Your task to perform on an android device: install app "Indeed Job Search" Image 0: 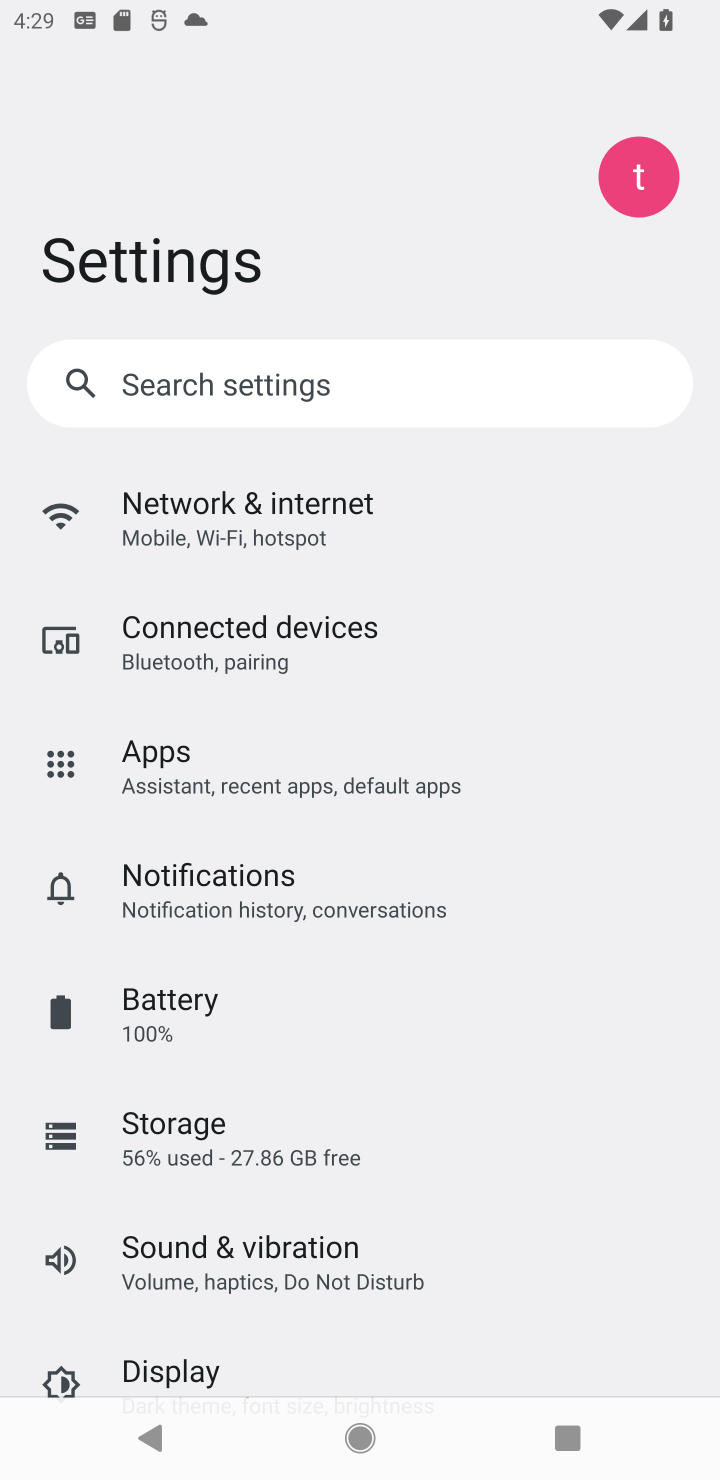
Step 0: press home button
Your task to perform on an android device: install app "Indeed Job Search" Image 1: 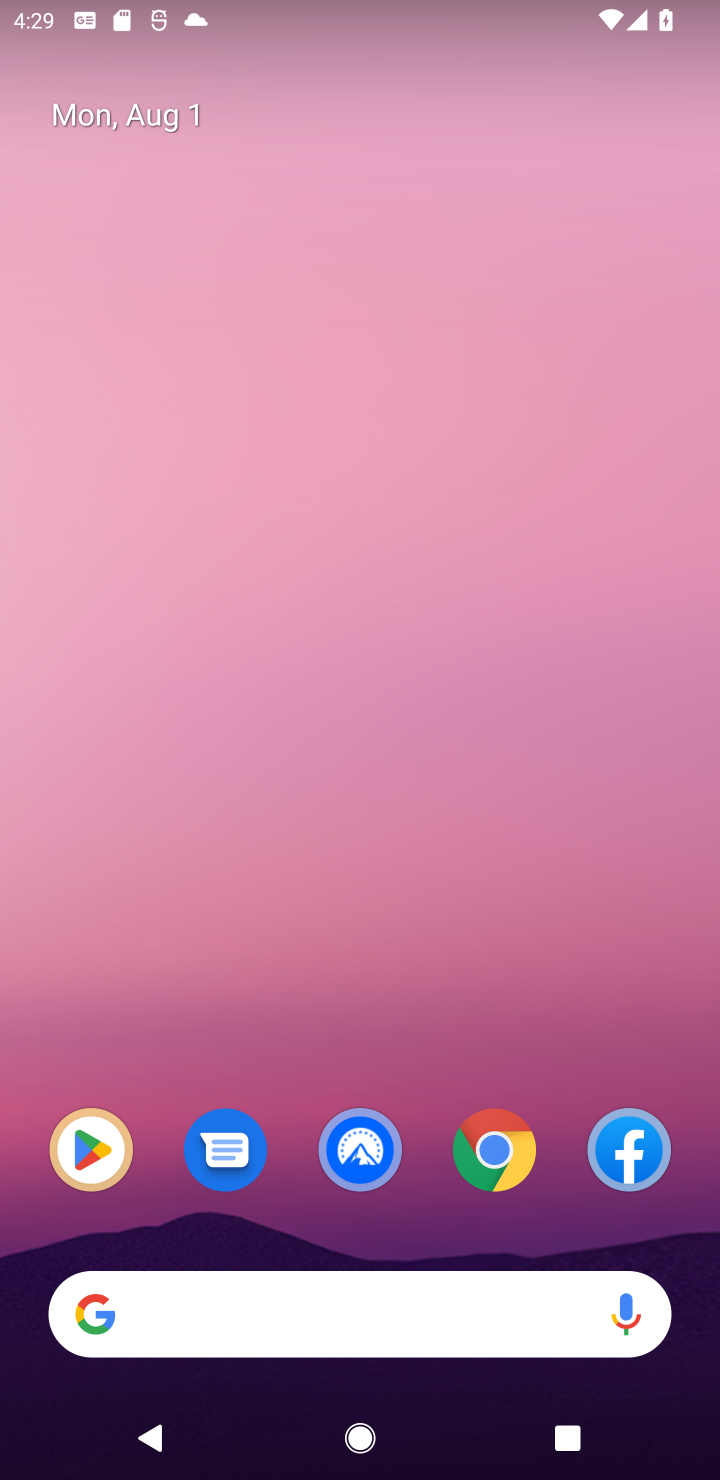
Step 1: drag from (299, 1230) to (390, 168)
Your task to perform on an android device: install app "Indeed Job Search" Image 2: 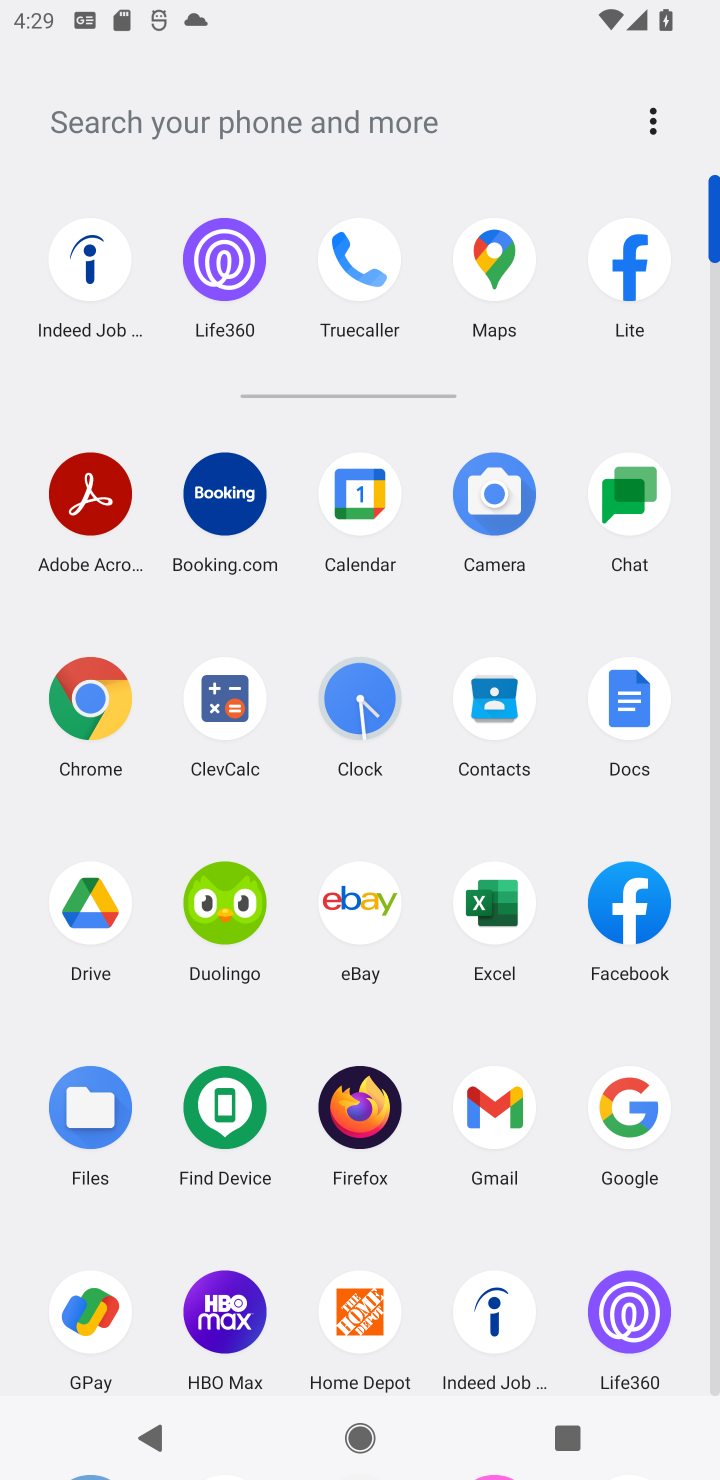
Step 2: click (88, 281)
Your task to perform on an android device: install app "Indeed Job Search" Image 3: 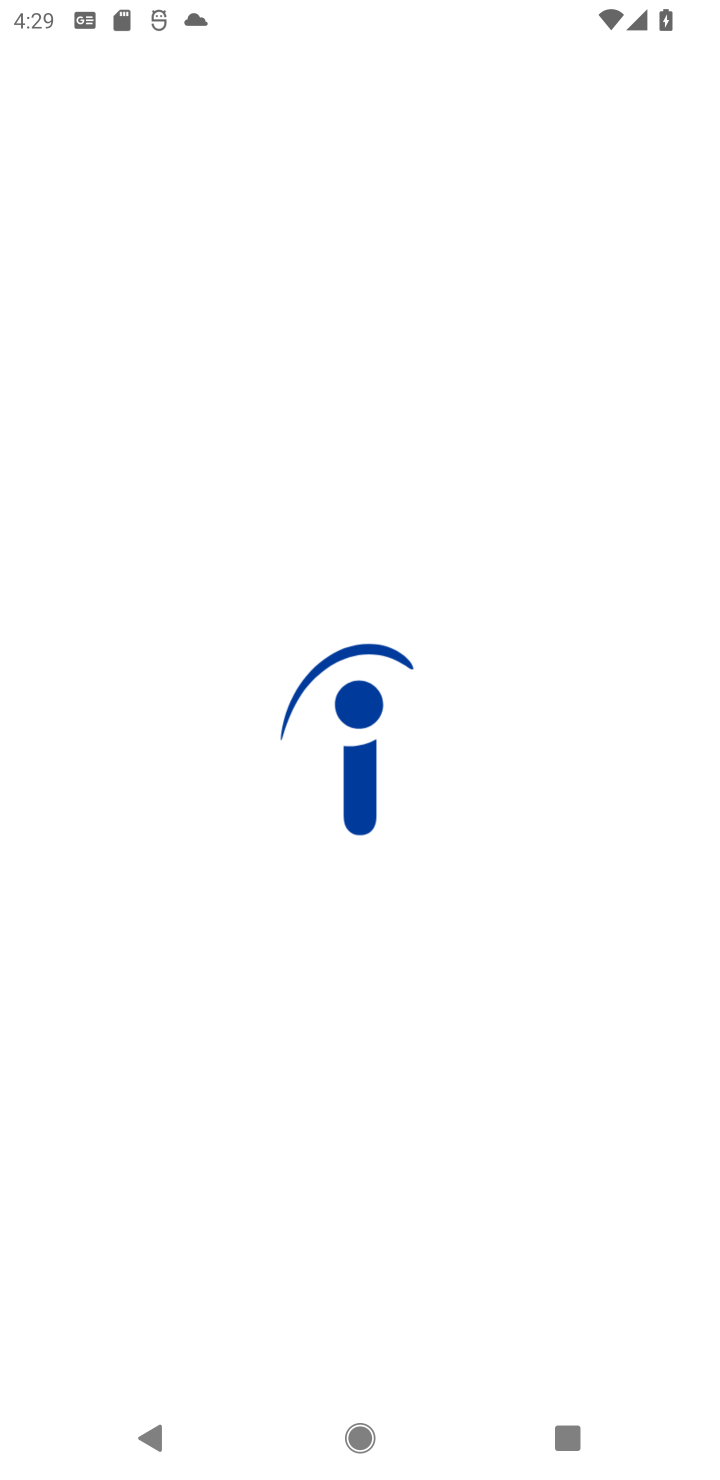
Step 3: task complete